Your task to perform on an android device: open app "ColorNote Notepad Notes" Image 0: 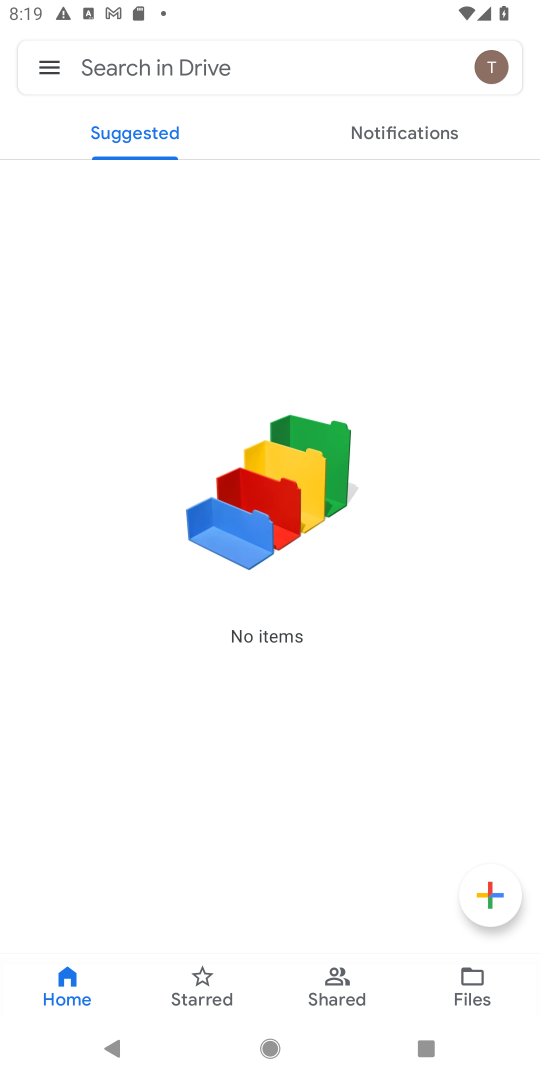
Step 0: press home button
Your task to perform on an android device: open app "ColorNote Notepad Notes" Image 1: 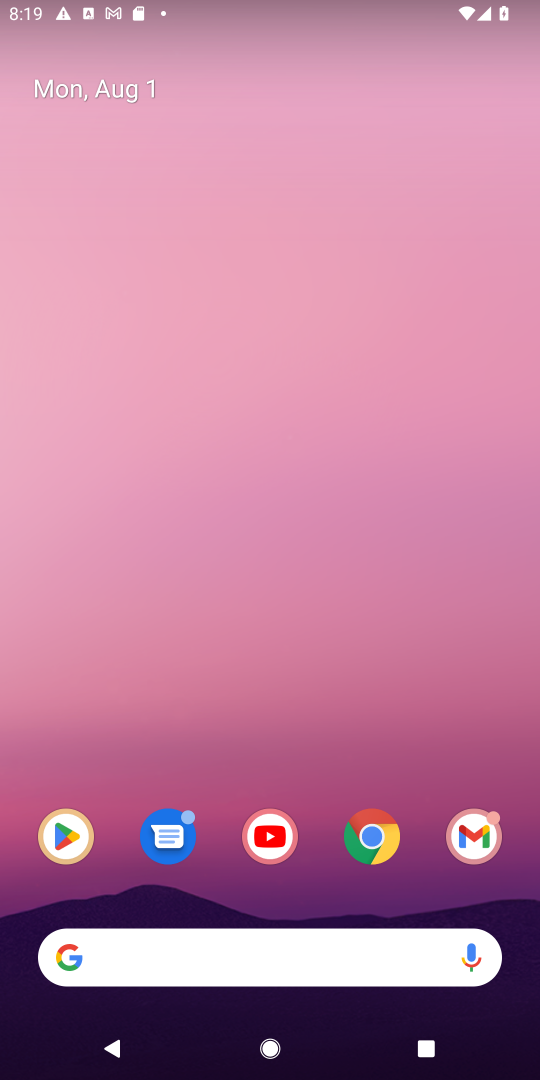
Step 1: click (63, 845)
Your task to perform on an android device: open app "ColorNote Notepad Notes" Image 2: 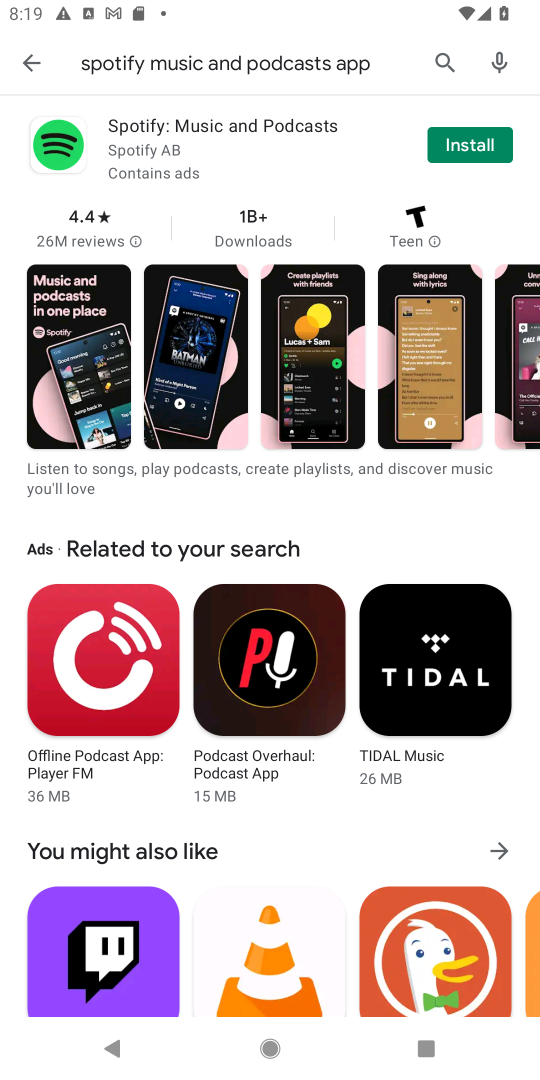
Step 2: click (437, 55)
Your task to perform on an android device: open app "ColorNote Notepad Notes" Image 3: 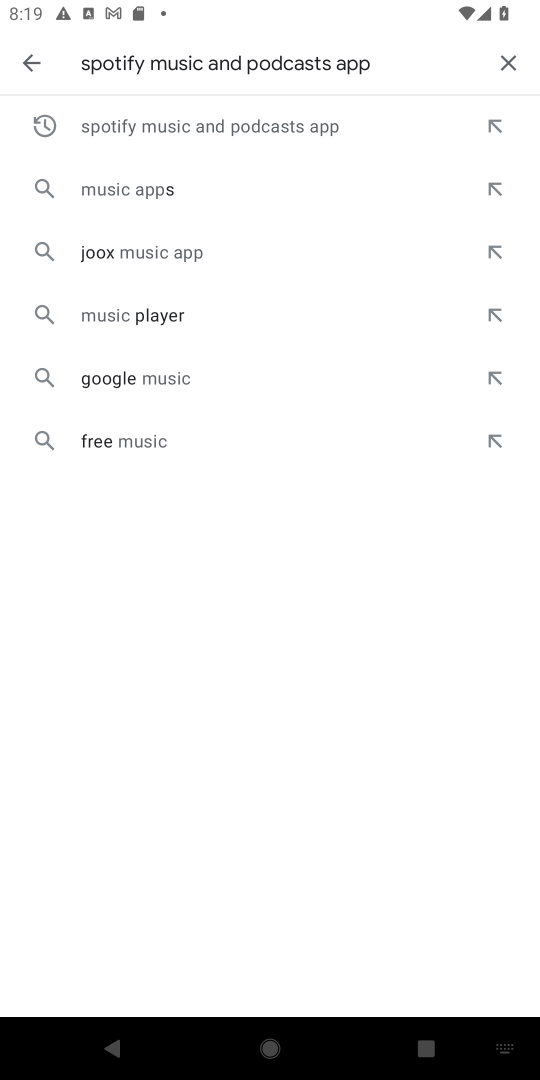
Step 3: click (505, 59)
Your task to perform on an android device: open app "ColorNote Notepad Notes" Image 4: 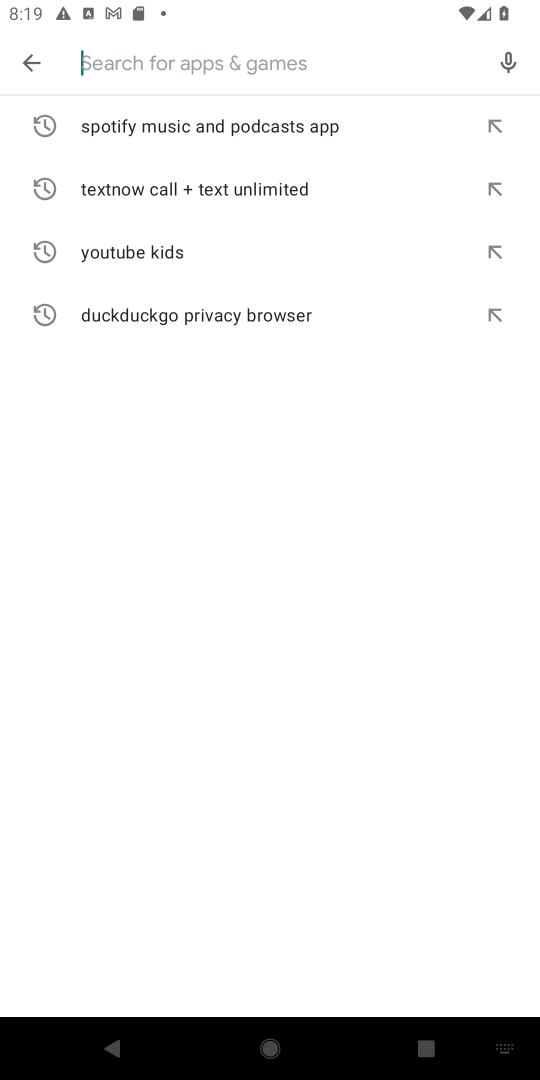
Step 4: type "ColorNote Notepad Notes"
Your task to perform on an android device: open app "ColorNote Notepad Notes" Image 5: 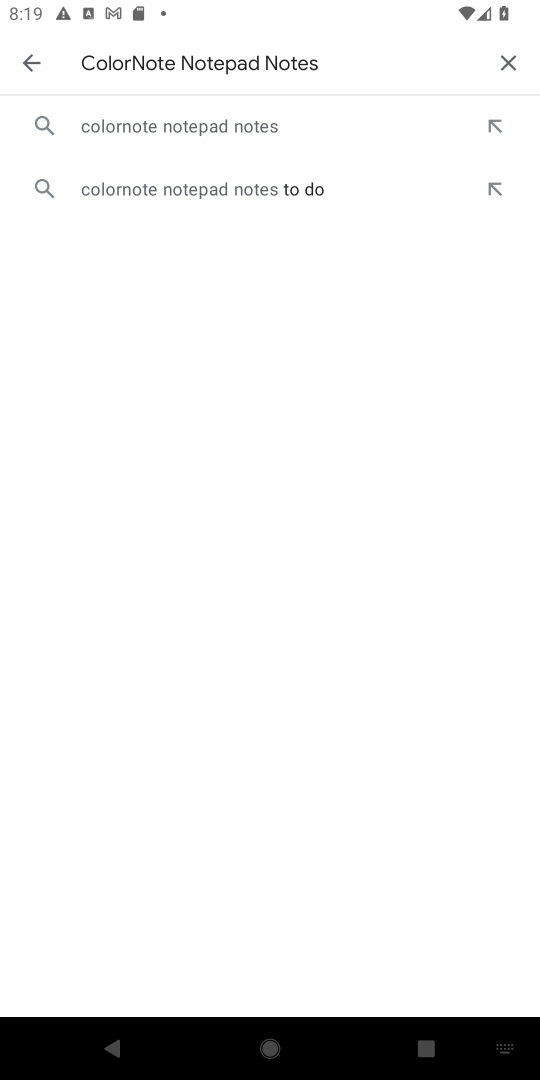
Step 5: click (222, 123)
Your task to perform on an android device: open app "ColorNote Notepad Notes" Image 6: 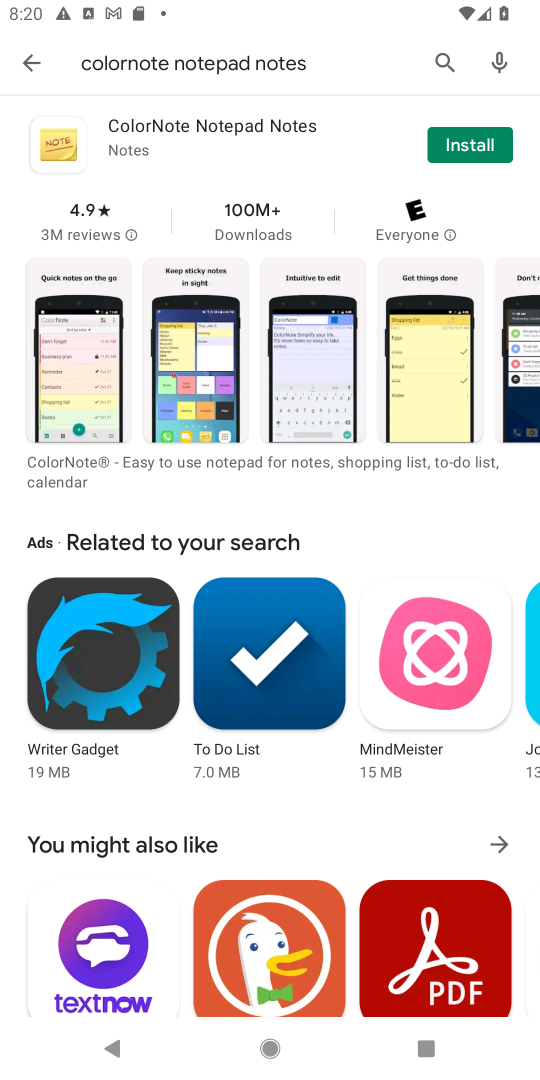
Step 6: task complete